Your task to perform on an android device: toggle notification dots Image 0: 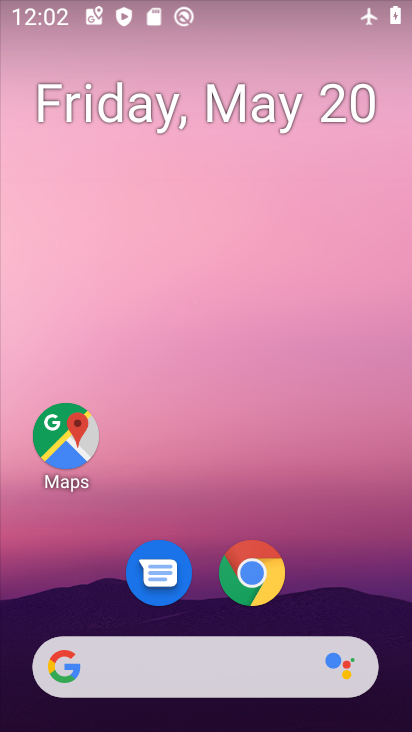
Step 0: drag from (315, 493) to (335, 135)
Your task to perform on an android device: toggle notification dots Image 1: 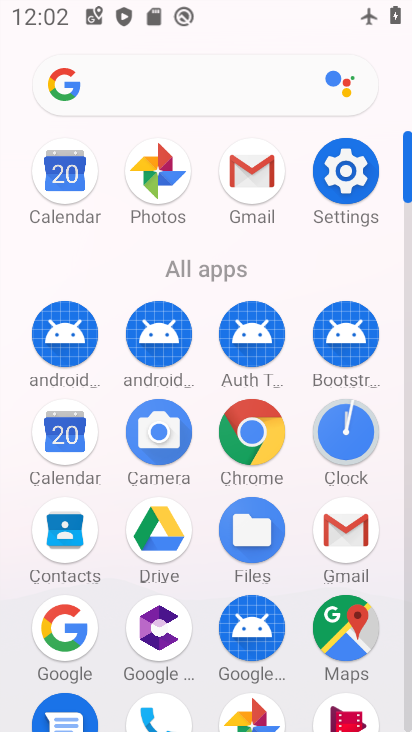
Step 1: click (328, 158)
Your task to perform on an android device: toggle notification dots Image 2: 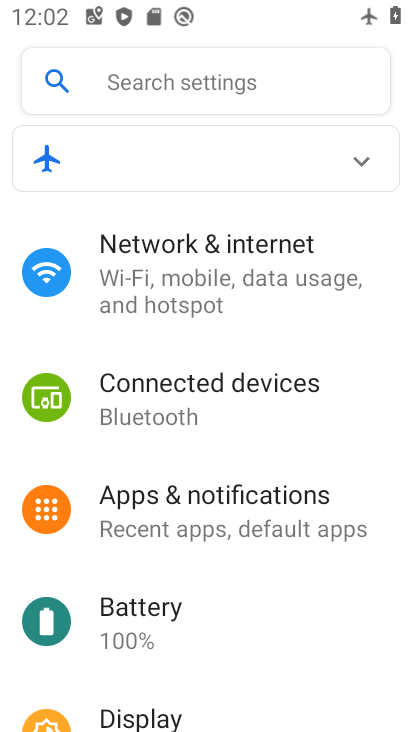
Step 2: click (214, 510)
Your task to perform on an android device: toggle notification dots Image 3: 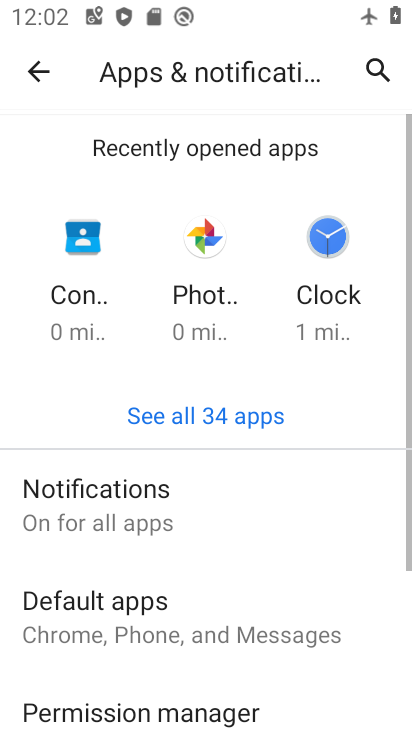
Step 3: click (172, 501)
Your task to perform on an android device: toggle notification dots Image 4: 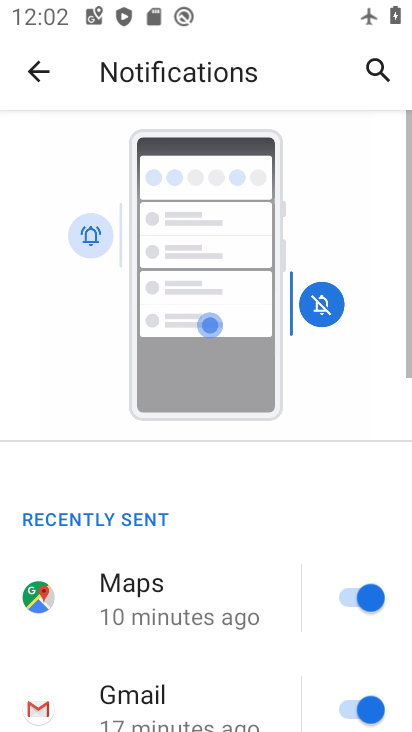
Step 4: drag from (238, 523) to (236, 68)
Your task to perform on an android device: toggle notification dots Image 5: 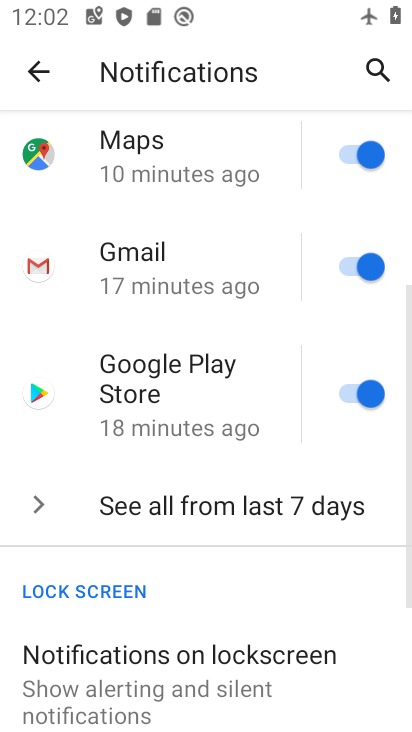
Step 5: drag from (224, 643) to (272, 210)
Your task to perform on an android device: toggle notification dots Image 6: 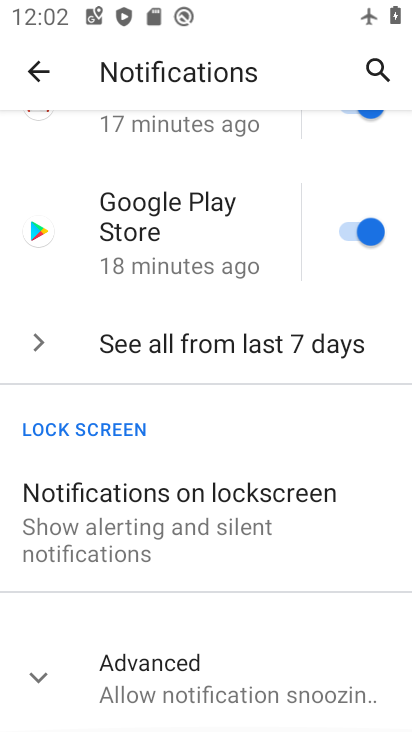
Step 6: click (165, 695)
Your task to perform on an android device: toggle notification dots Image 7: 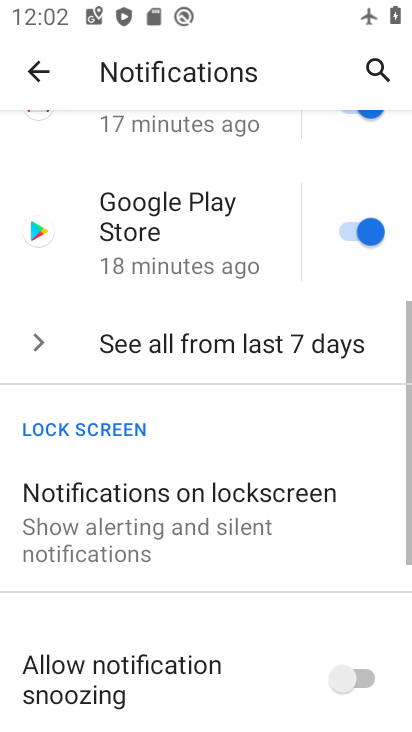
Step 7: drag from (258, 651) to (289, 297)
Your task to perform on an android device: toggle notification dots Image 8: 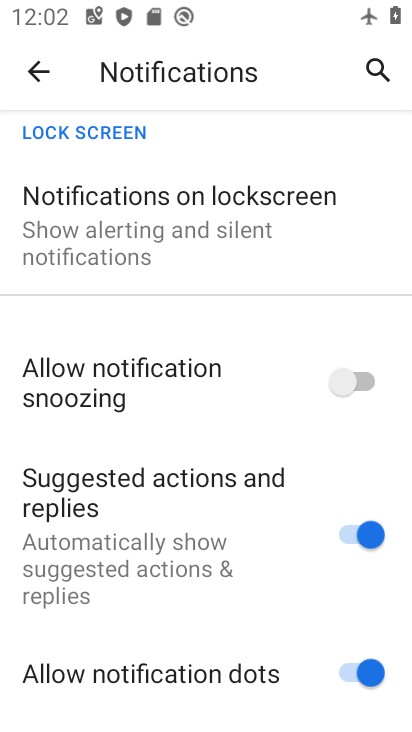
Step 8: click (353, 673)
Your task to perform on an android device: toggle notification dots Image 9: 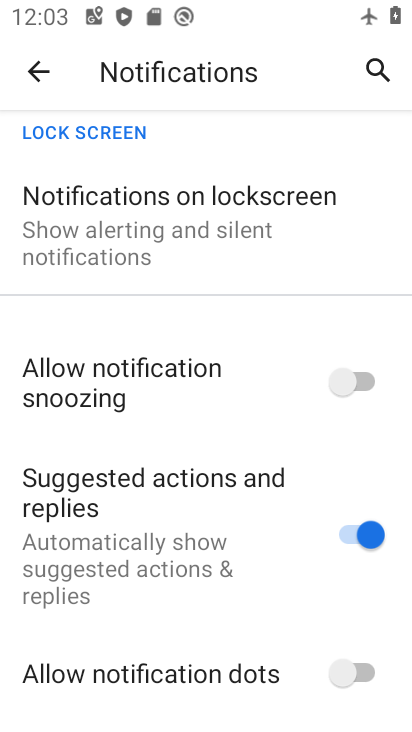
Step 9: task complete